Your task to perform on an android device: turn on bluetooth scan Image 0: 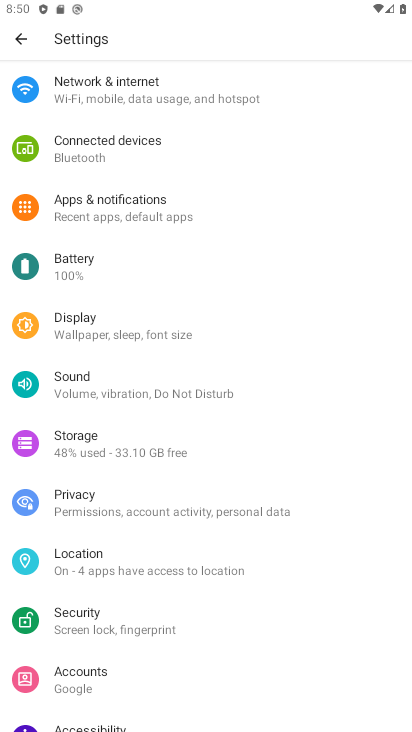
Step 0: click (101, 570)
Your task to perform on an android device: turn on bluetooth scan Image 1: 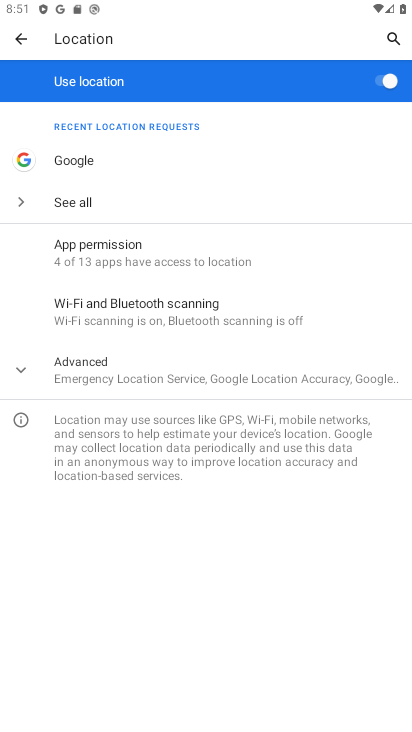
Step 1: click (183, 310)
Your task to perform on an android device: turn on bluetooth scan Image 2: 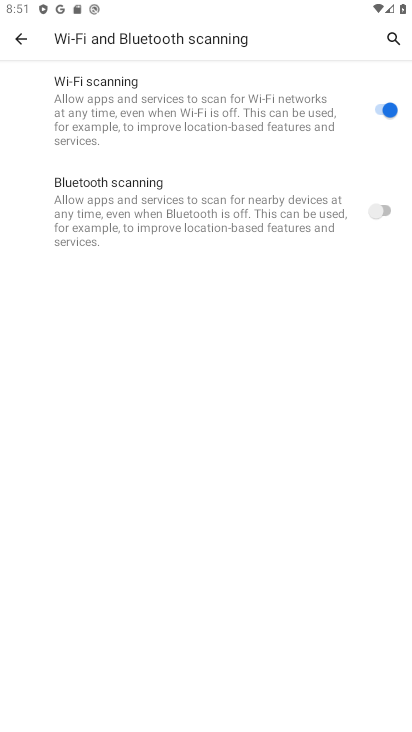
Step 2: click (378, 211)
Your task to perform on an android device: turn on bluetooth scan Image 3: 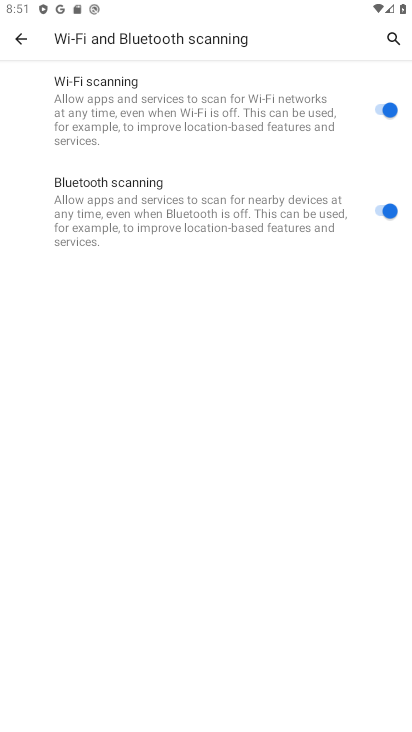
Step 3: task complete